Your task to perform on an android device: Go to calendar. Show me events next week Image 0: 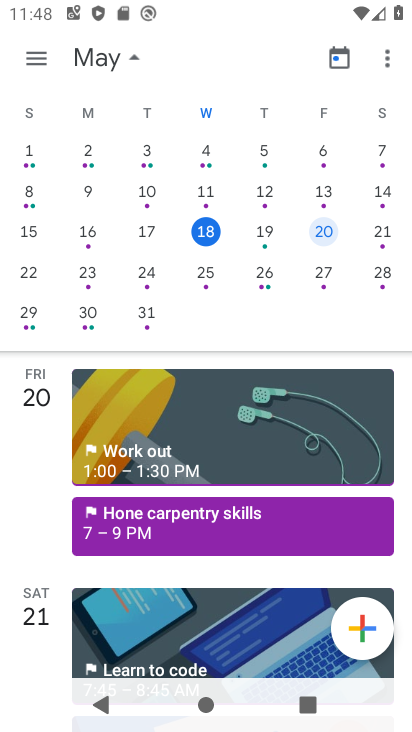
Step 0: press home button
Your task to perform on an android device: Go to calendar. Show me events next week Image 1: 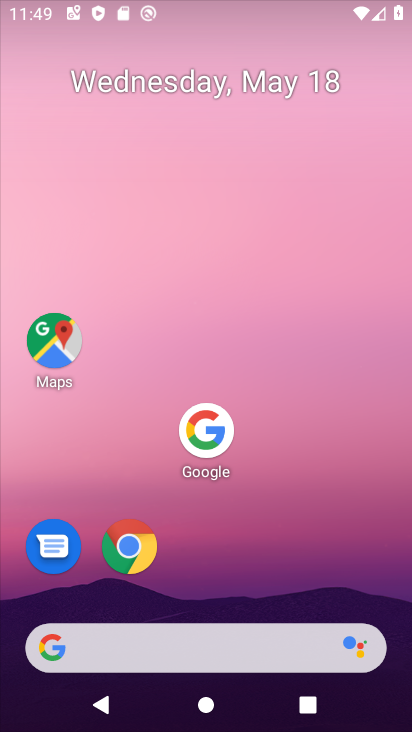
Step 1: drag from (253, 546) to (252, 127)
Your task to perform on an android device: Go to calendar. Show me events next week Image 2: 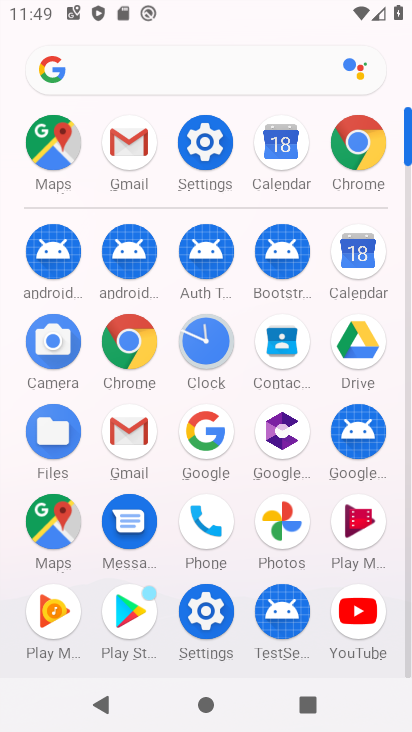
Step 2: click (360, 256)
Your task to perform on an android device: Go to calendar. Show me events next week Image 3: 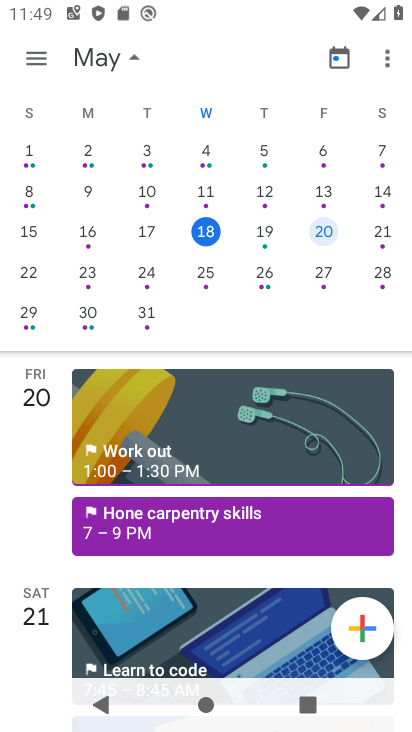
Step 3: click (151, 273)
Your task to perform on an android device: Go to calendar. Show me events next week Image 4: 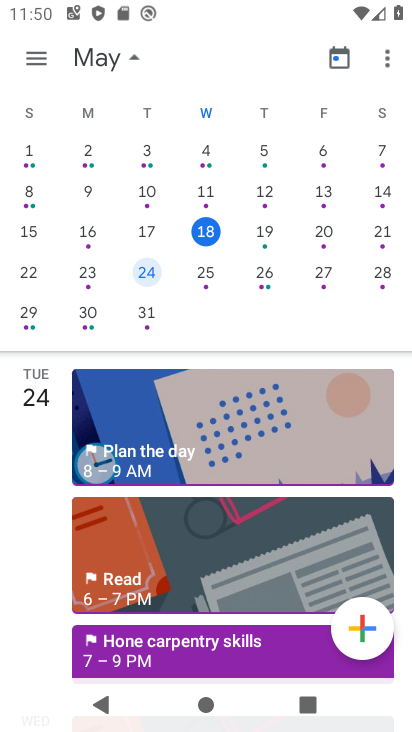
Step 4: task complete